Your task to perform on an android device: What's on my calendar tomorrow? Image 0: 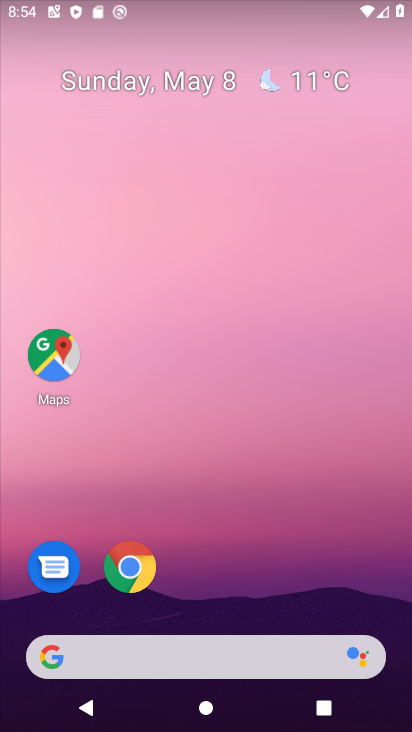
Step 0: drag from (282, 573) to (348, 89)
Your task to perform on an android device: What's on my calendar tomorrow? Image 1: 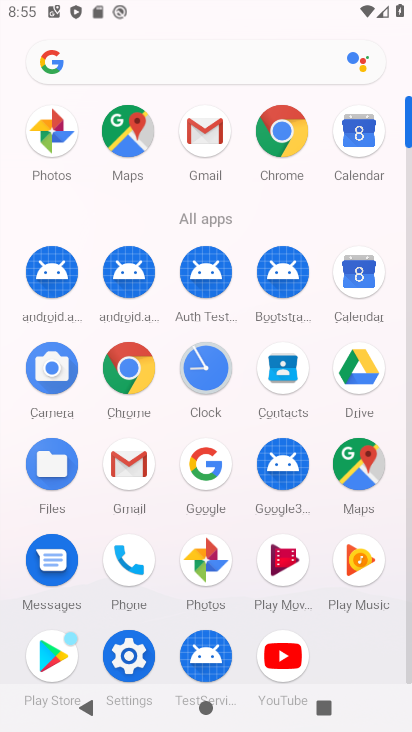
Step 1: click (362, 274)
Your task to perform on an android device: What's on my calendar tomorrow? Image 2: 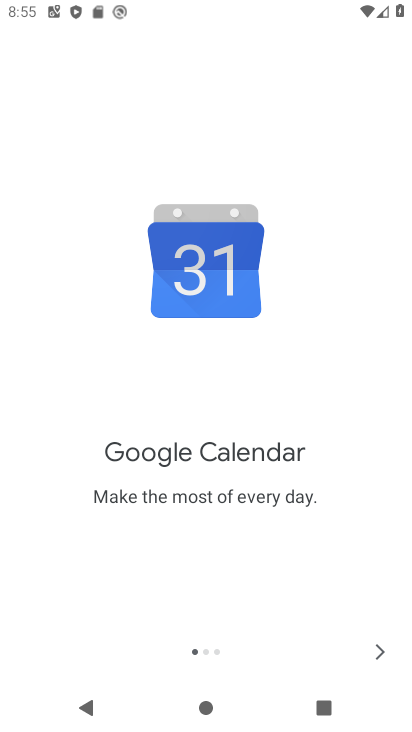
Step 2: click (389, 647)
Your task to perform on an android device: What's on my calendar tomorrow? Image 3: 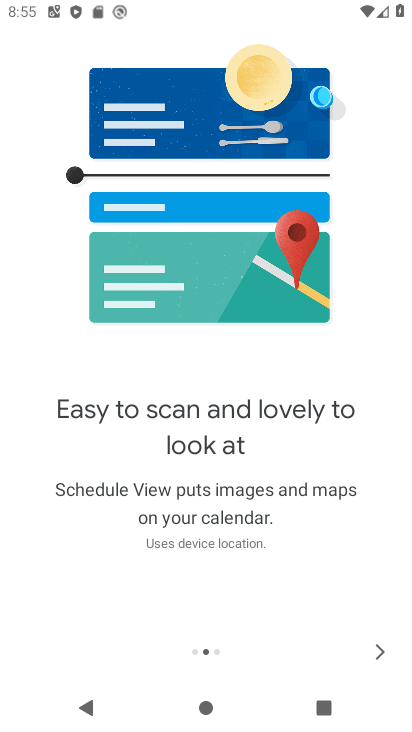
Step 3: click (391, 646)
Your task to perform on an android device: What's on my calendar tomorrow? Image 4: 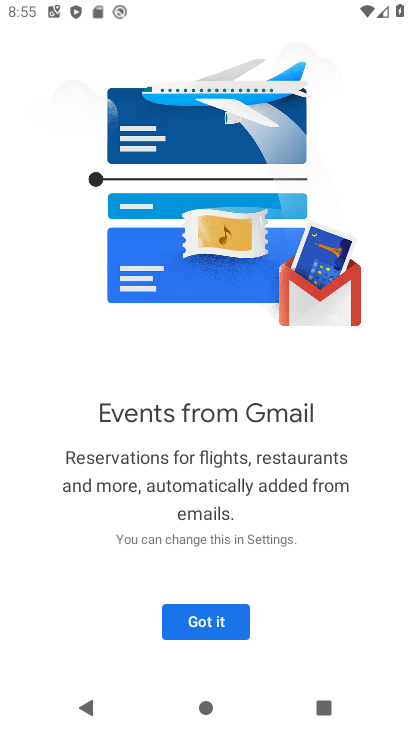
Step 4: click (247, 625)
Your task to perform on an android device: What's on my calendar tomorrow? Image 5: 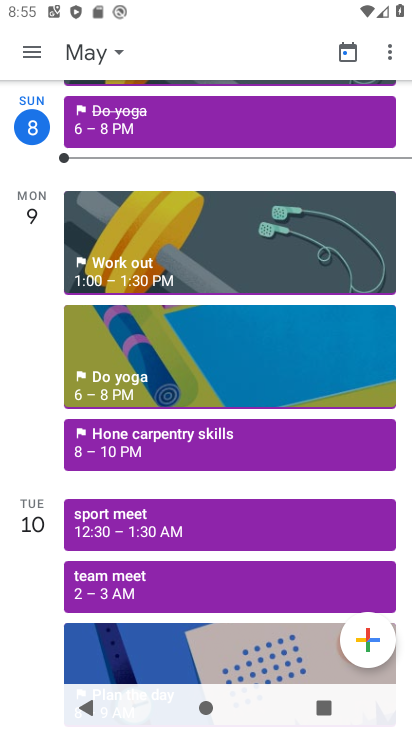
Step 5: drag from (200, 599) to (275, 280)
Your task to perform on an android device: What's on my calendar tomorrow? Image 6: 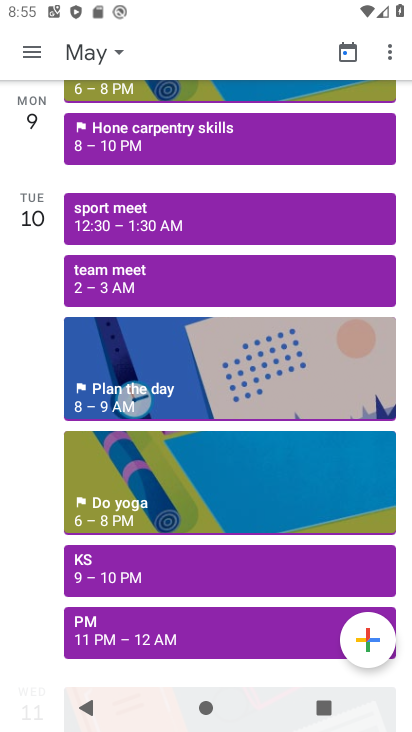
Step 6: drag from (216, 540) to (249, 301)
Your task to perform on an android device: What's on my calendar tomorrow? Image 7: 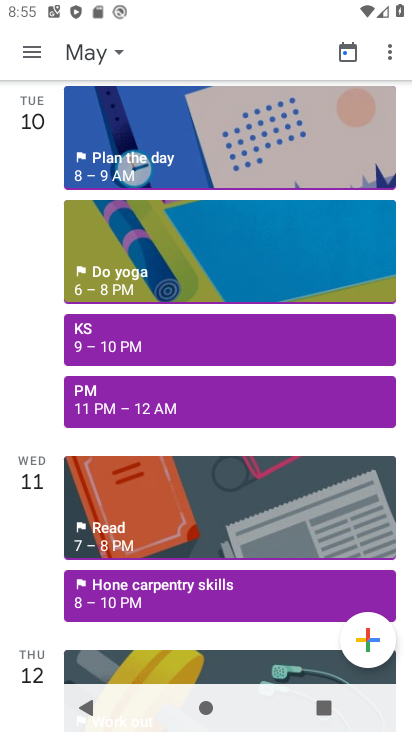
Step 7: click (157, 246)
Your task to perform on an android device: What's on my calendar tomorrow? Image 8: 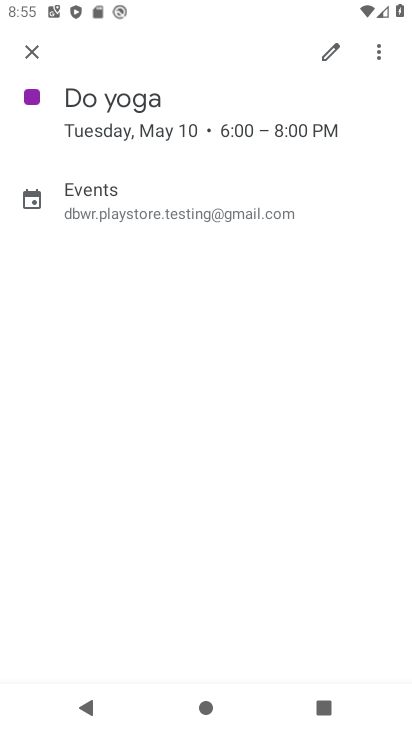
Step 8: task complete